Your task to perform on an android device: Add razer blackwidow to the cart on target.com, then select checkout. Image 0: 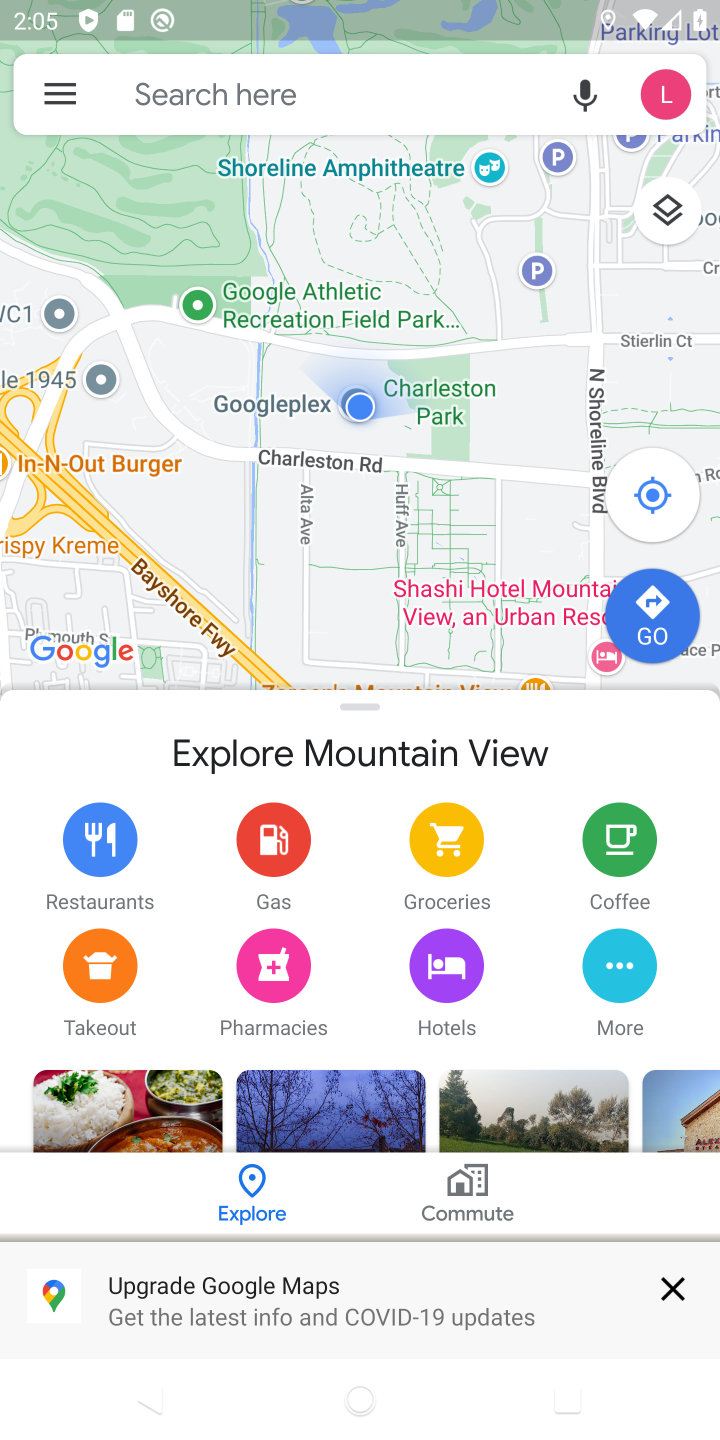
Step 0: press home button
Your task to perform on an android device: Add razer blackwidow to the cart on target.com, then select checkout. Image 1: 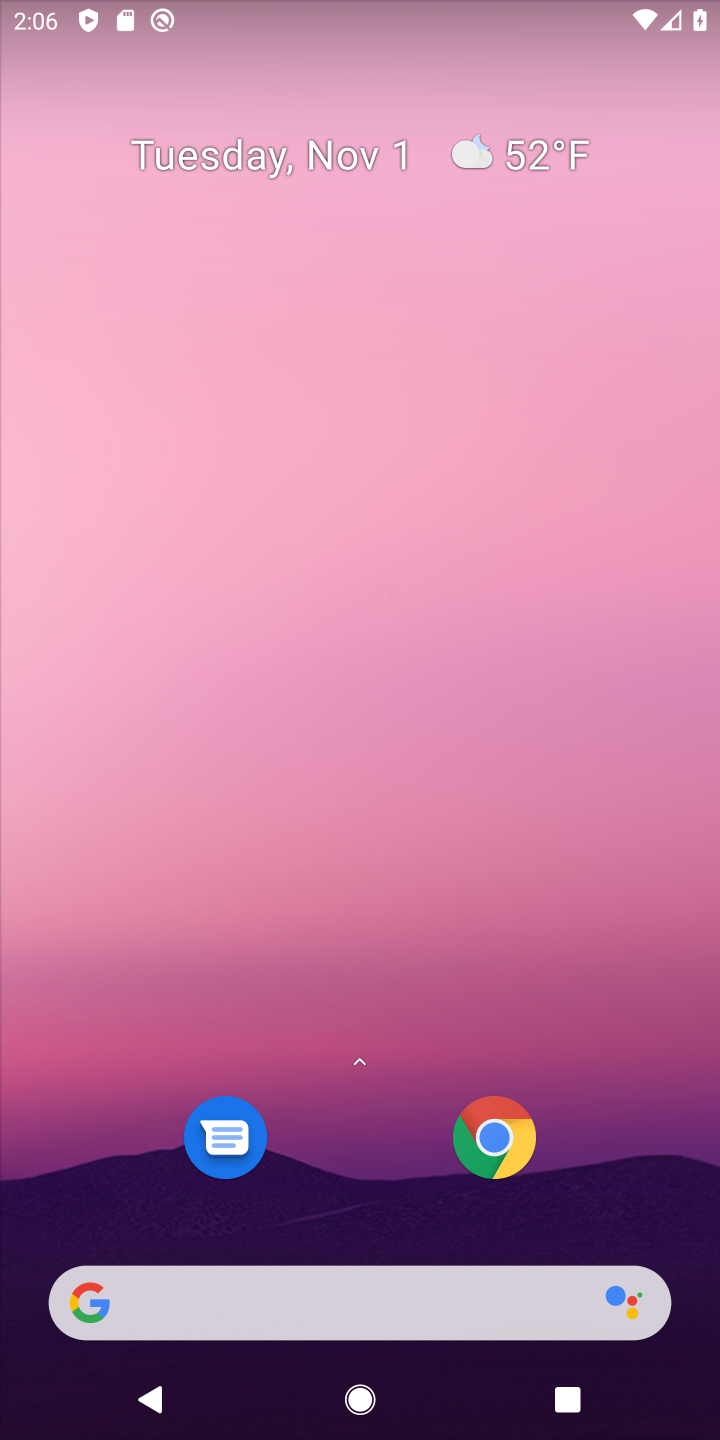
Step 1: click (294, 1305)
Your task to perform on an android device: Add razer blackwidow to the cart on target.com, then select checkout. Image 2: 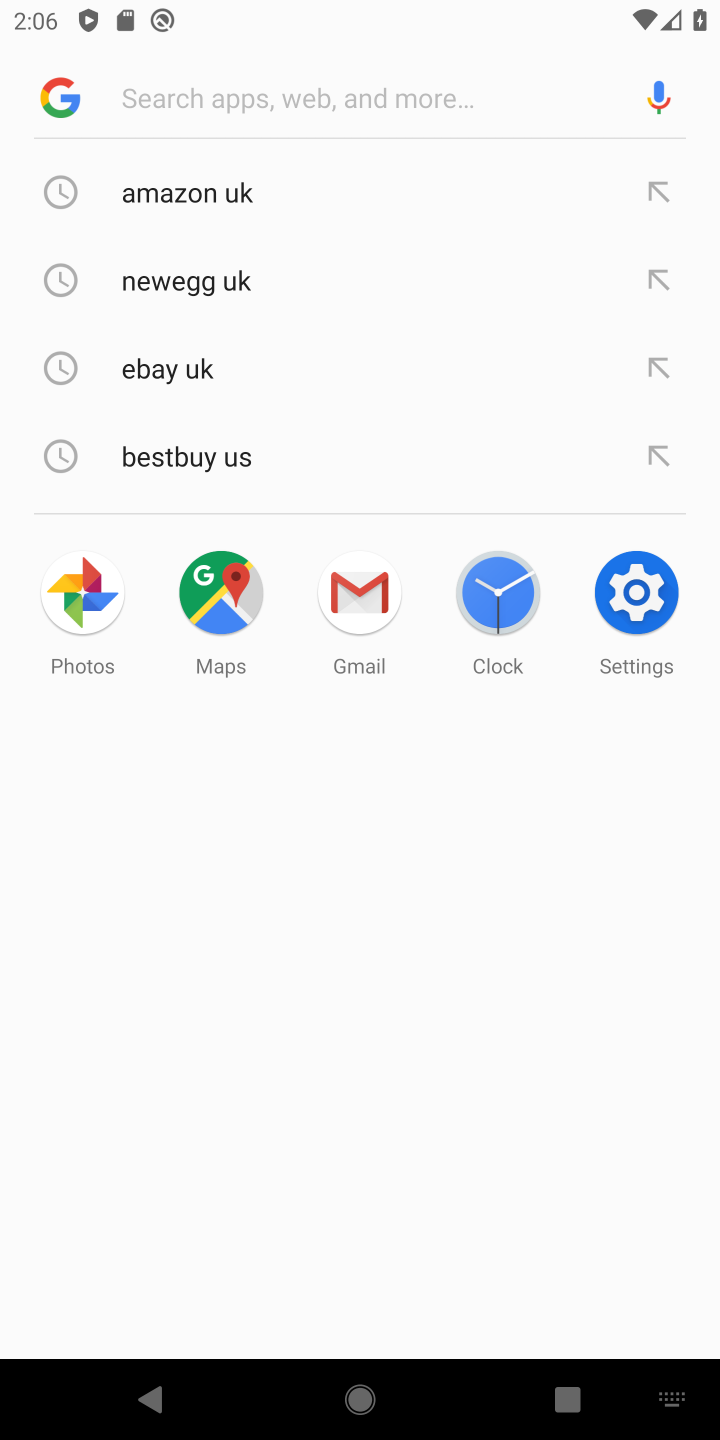
Step 2: type "target"
Your task to perform on an android device: Add razer blackwidow to the cart on target.com, then select checkout. Image 3: 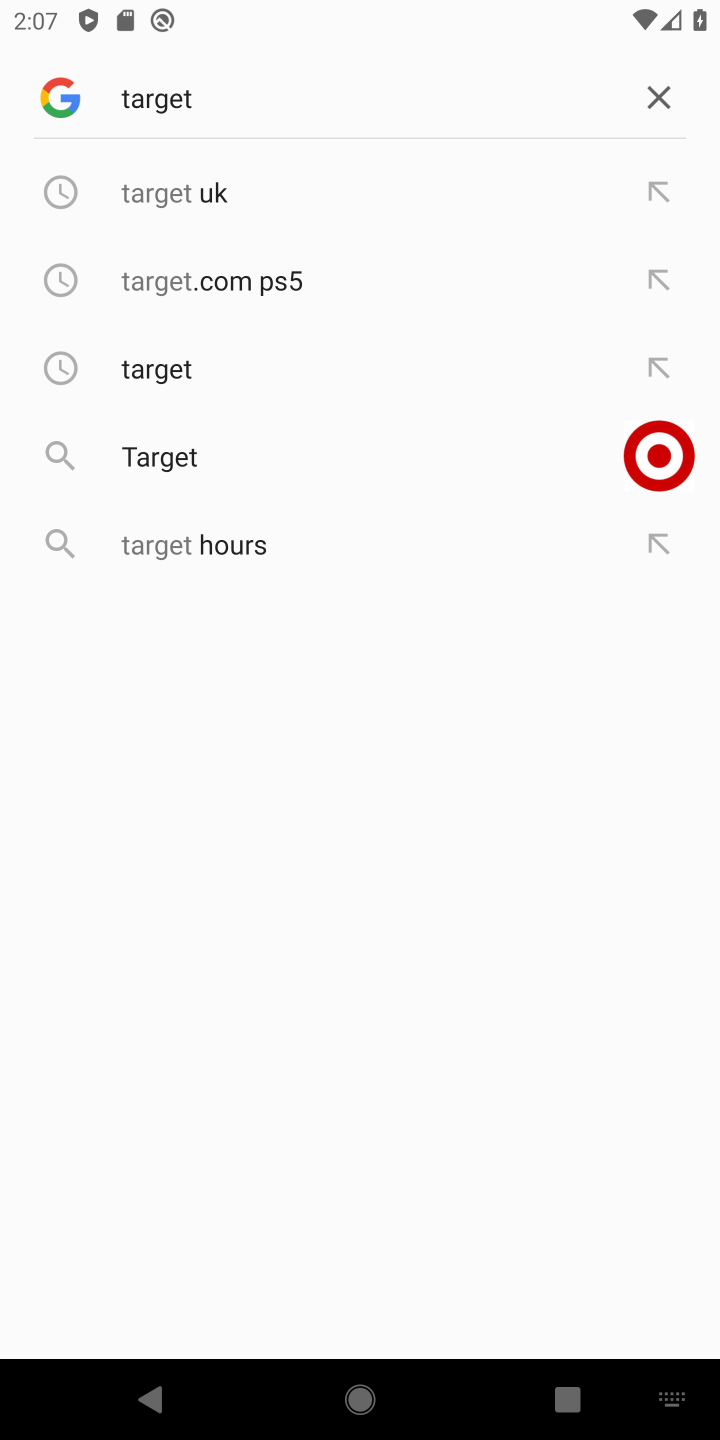
Step 3: click (328, 221)
Your task to perform on an android device: Add razer blackwidow to the cart on target.com, then select checkout. Image 4: 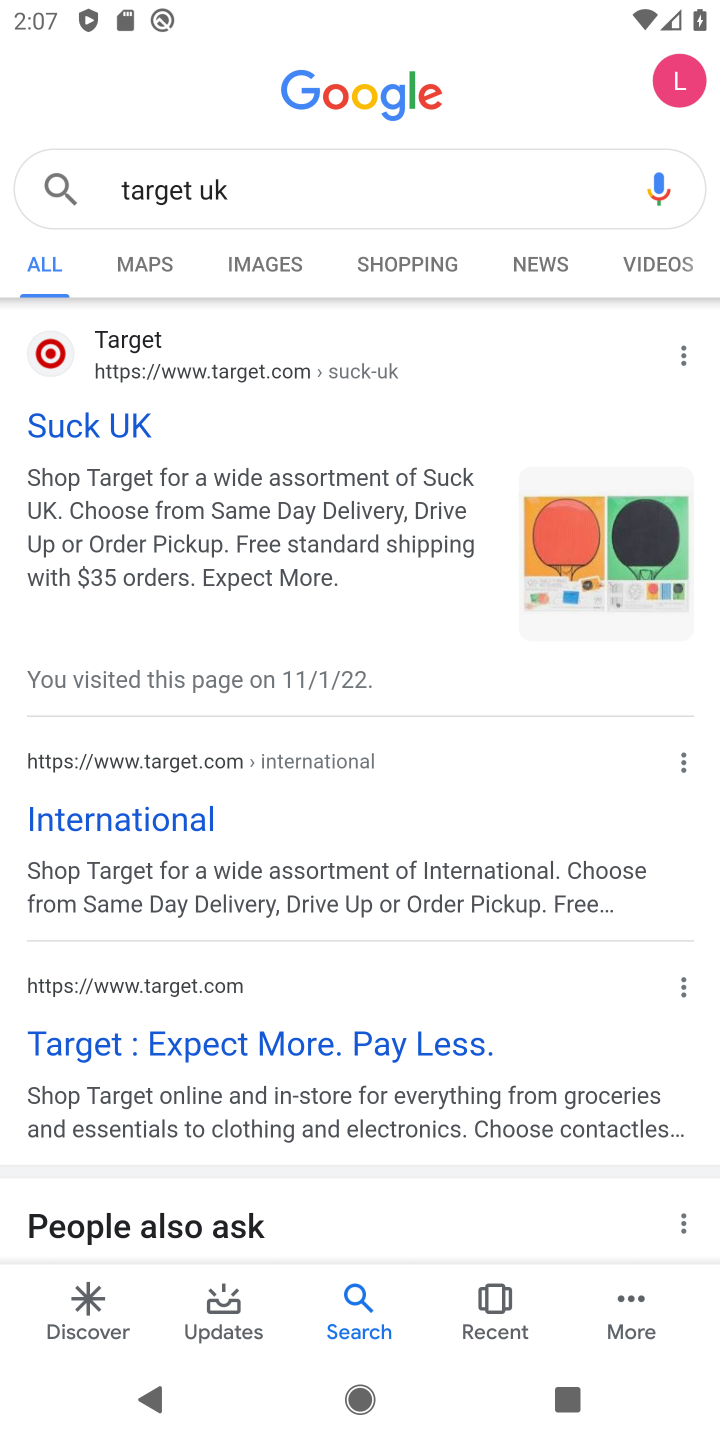
Step 4: click (72, 402)
Your task to perform on an android device: Add razer blackwidow to the cart on target.com, then select checkout. Image 5: 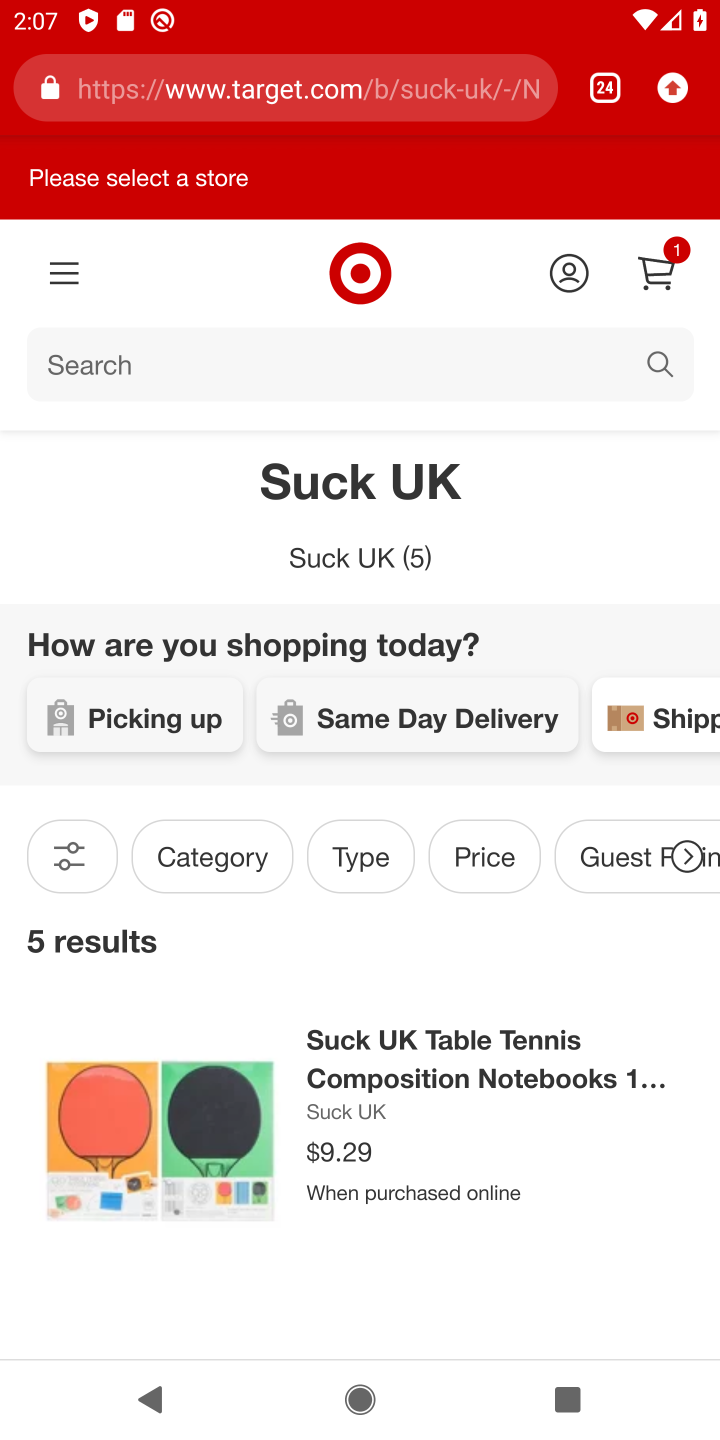
Step 5: click (197, 383)
Your task to perform on an android device: Add razer blackwidow to the cart on target.com, then select checkout. Image 6: 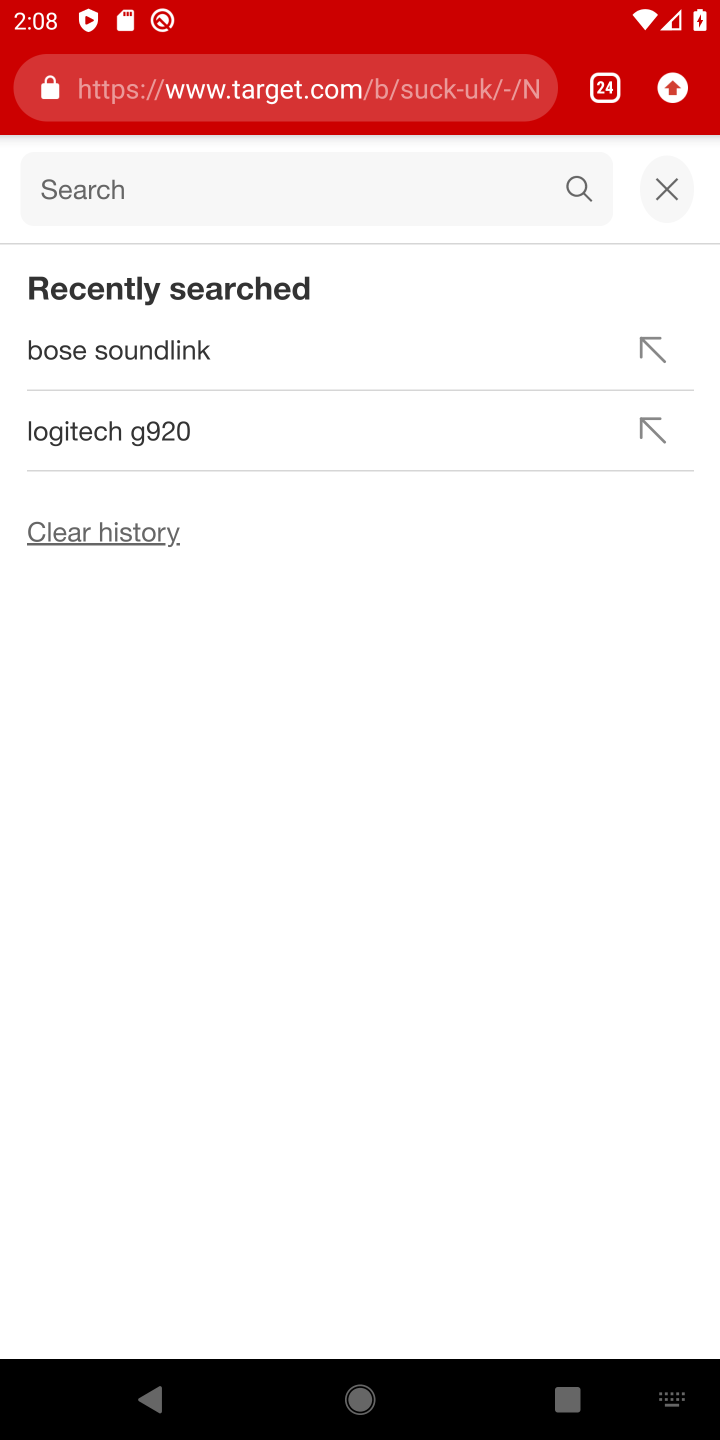
Step 6: type "razer blackwidow"
Your task to perform on an android device: Add razer blackwidow to the cart on target.com, then select checkout. Image 7: 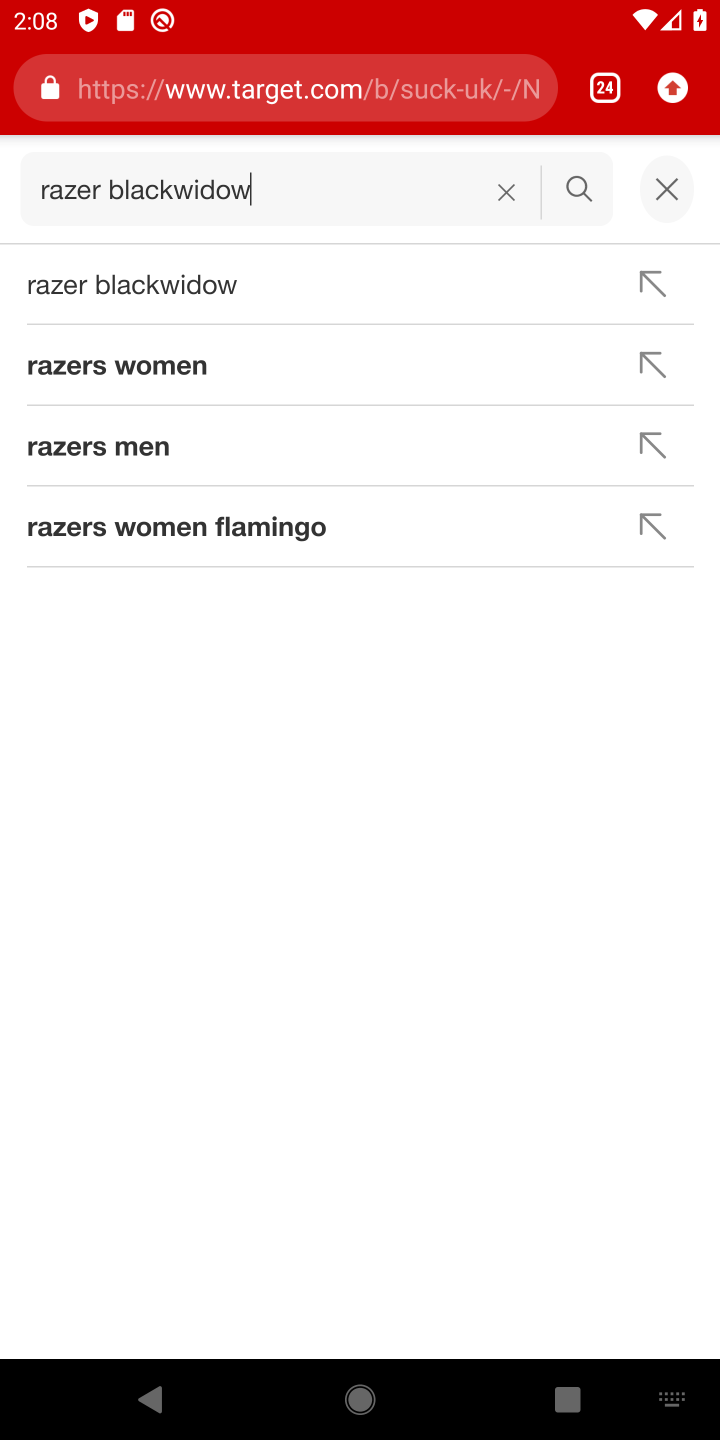
Step 7: click (150, 275)
Your task to perform on an android device: Add razer blackwidow to the cart on target.com, then select checkout. Image 8: 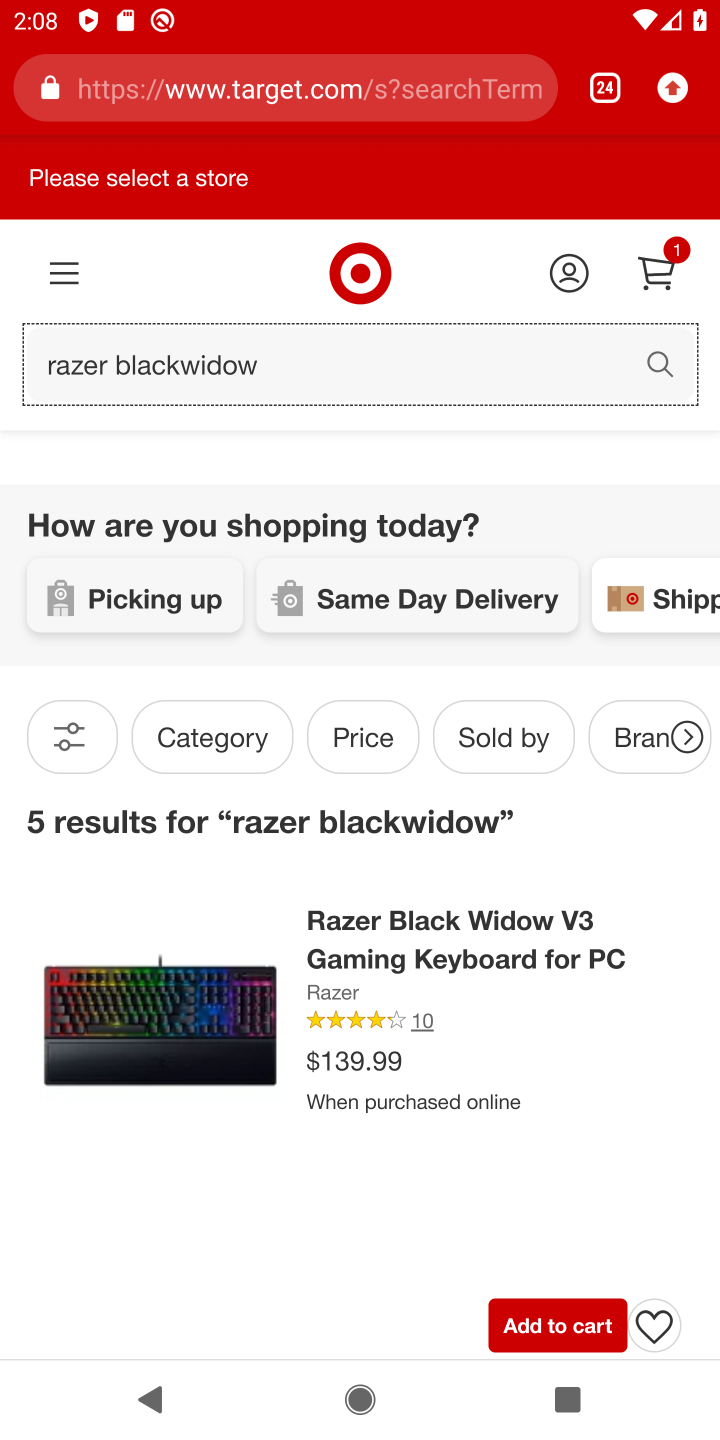
Step 8: click (503, 1073)
Your task to perform on an android device: Add razer blackwidow to the cart on target.com, then select checkout. Image 9: 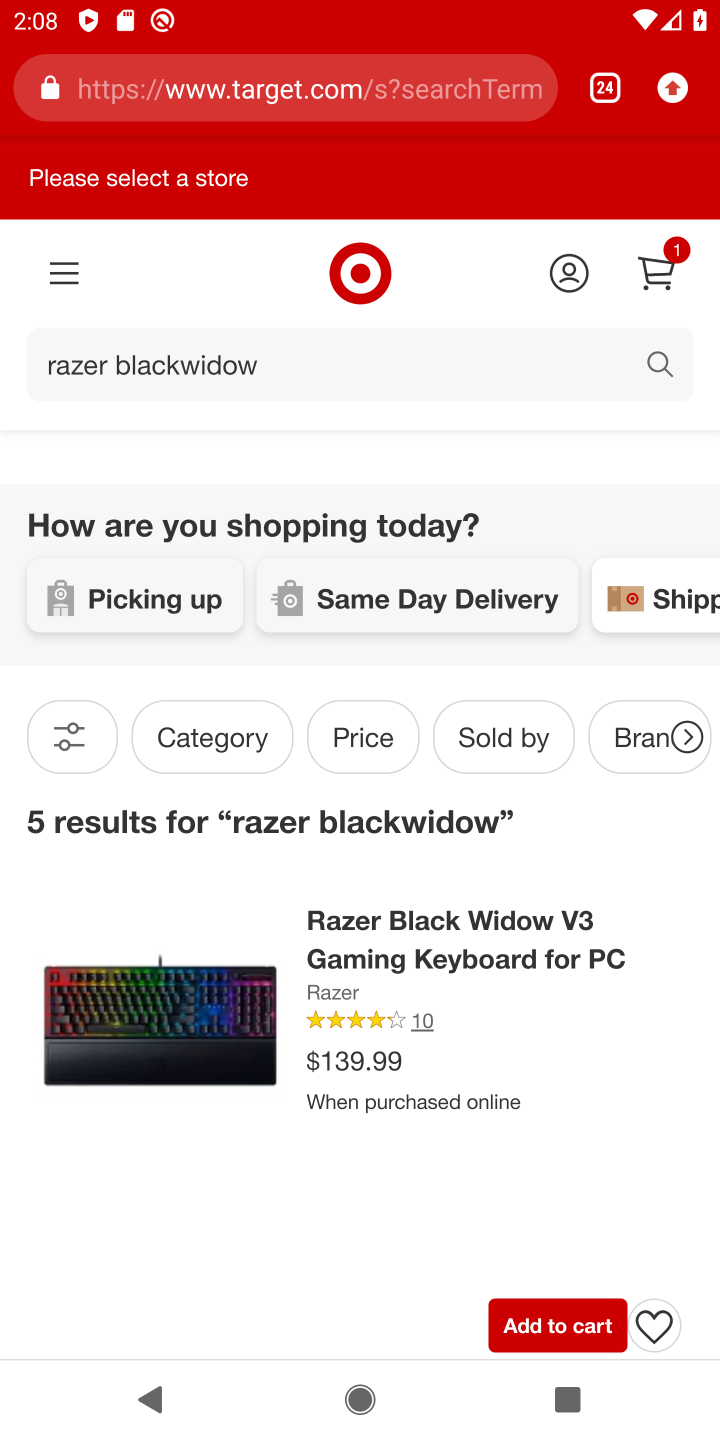
Step 9: click (576, 1335)
Your task to perform on an android device: Add razer blackwidow to the cart on target.com, then select checkout. Image 10: 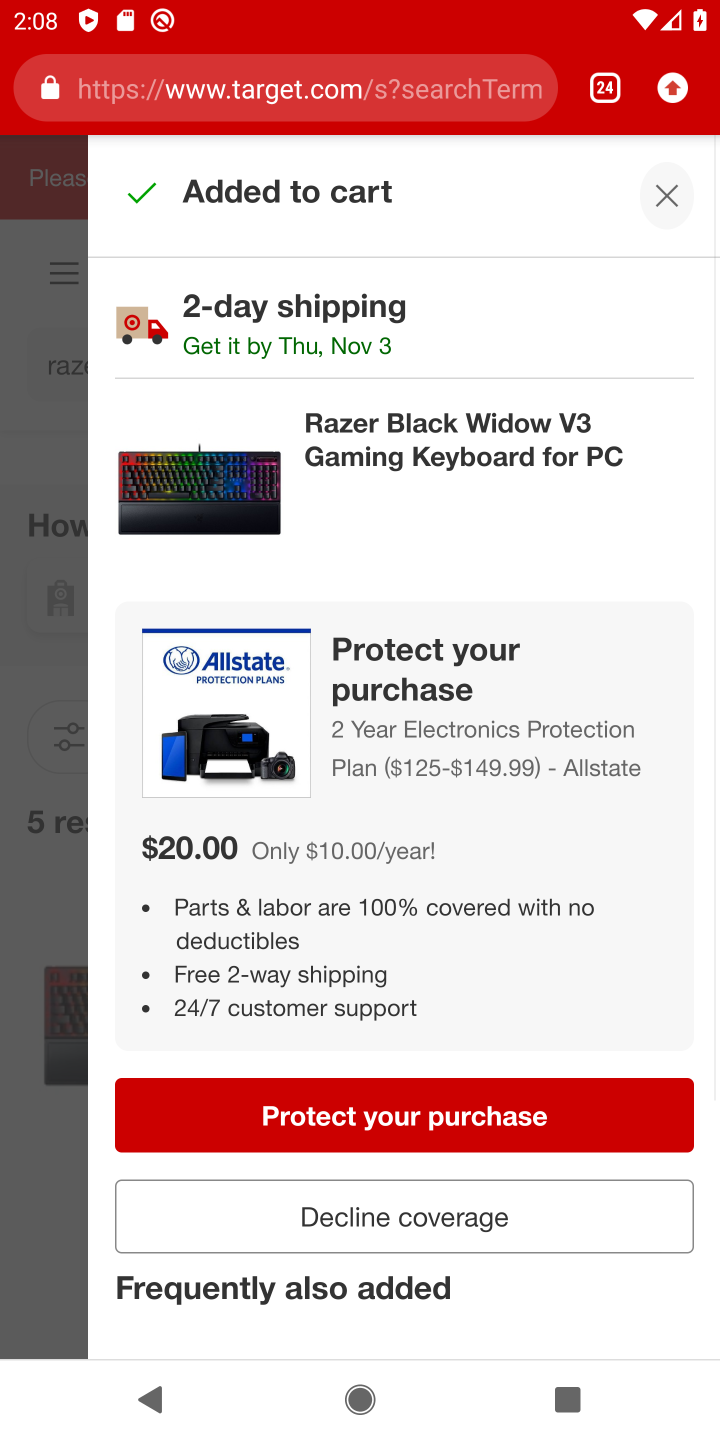
Step 10: task complete